Your task to perform on an android device: Open Youtube and go to the subscriptions tab Image 0: 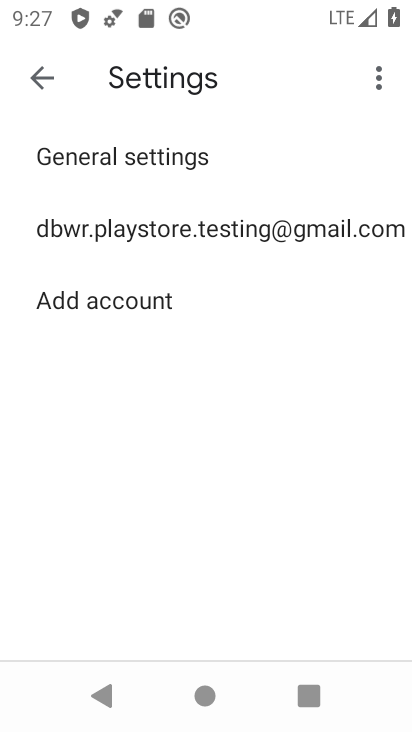
Step 0: press home button
Your task to perform on an android device: Open Youtube and go to the subscriptions tab Image 1: 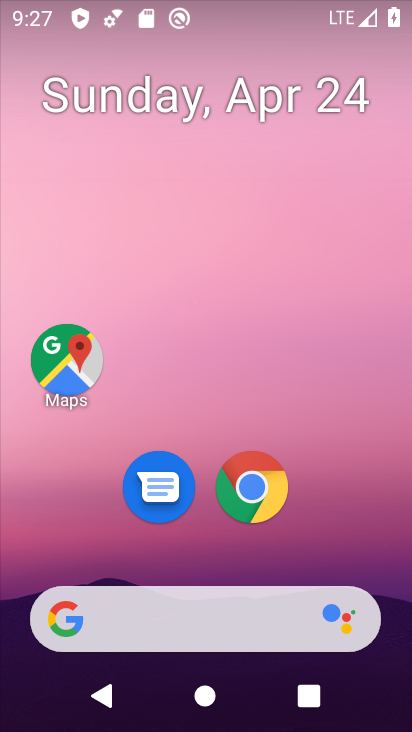
Step 1: drag from (248, 550) to (263, 26)
Your task to perform on an android device: Open Youtube and go to the subscriptions tab Image 2: 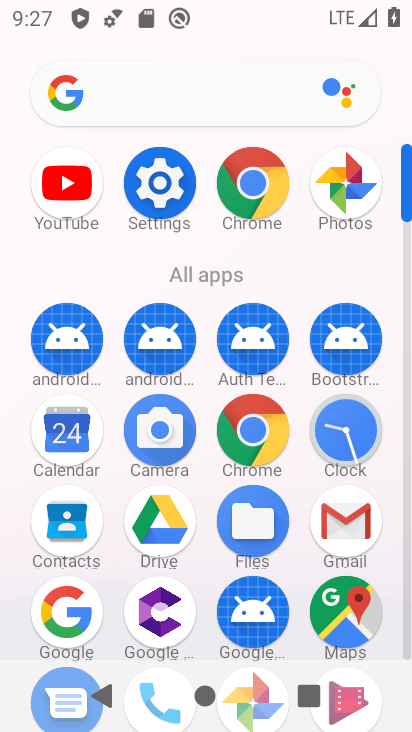
Step 2: click (57, 179)
Your task to perform on an android device: Open Youtube and go to the subscriptions tab Image 3: 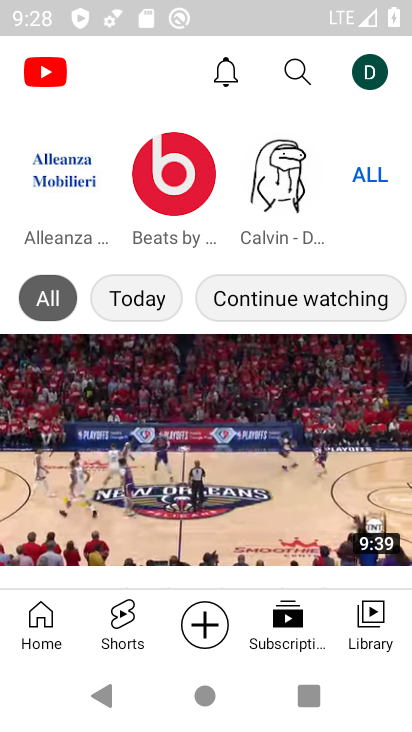
Step 3: drag from (366, 513) to (359, 230)
Your task to perform on an android device: Open Youtube and go to the subscriptions tab Image 4: 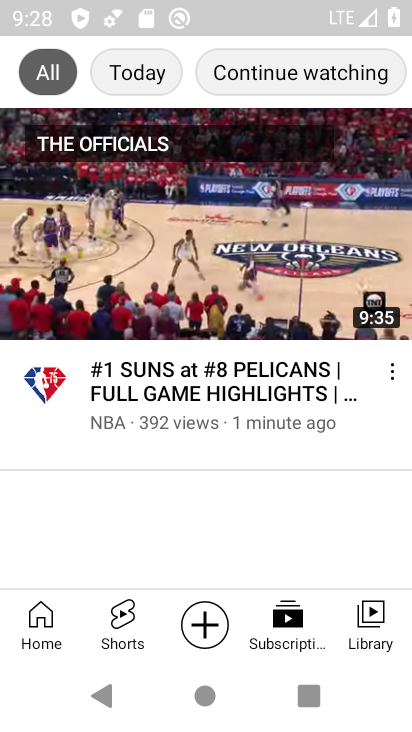
Step 4: click (285, 613)
Your task to perform on an android device: Open Youtube and go to the subscriptions tab Image 5: 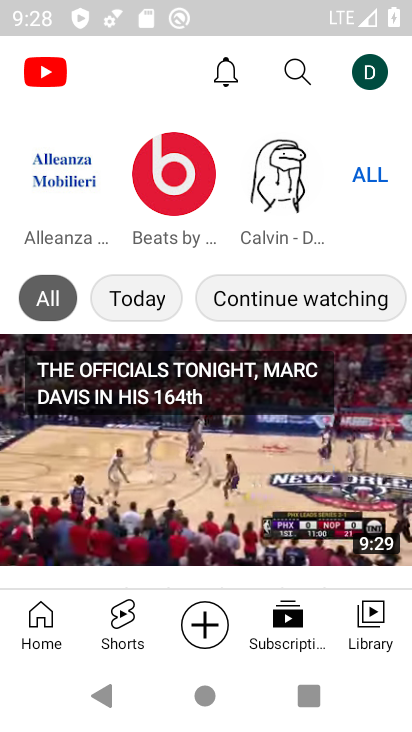
Step 5: task complete